Your task to perform on an android device: toggle translation in the chrome app Image 0: 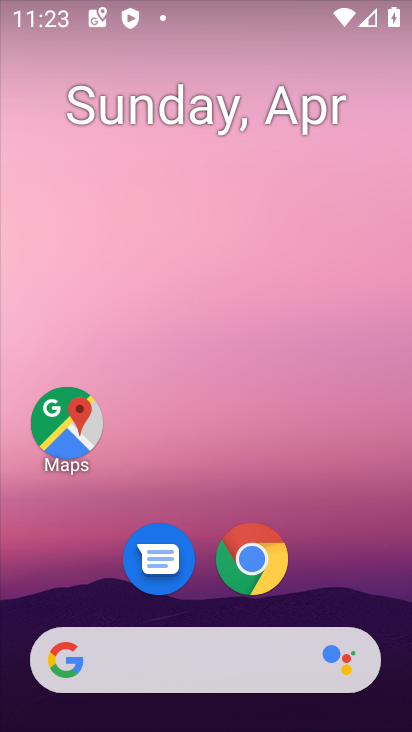
Step 0: click (257, 556)
Your task to perform on an android device: toggle translation in the chrome app Image 1: 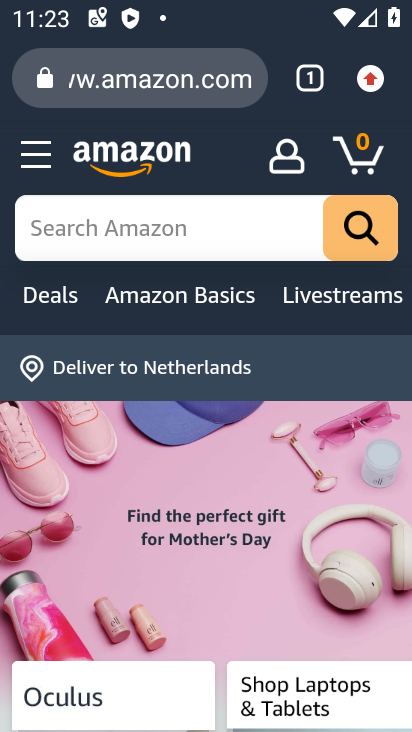
Step 1: click (366, 79)
Your task to perform on an android device: toggle translation in the chrome app Image 2: 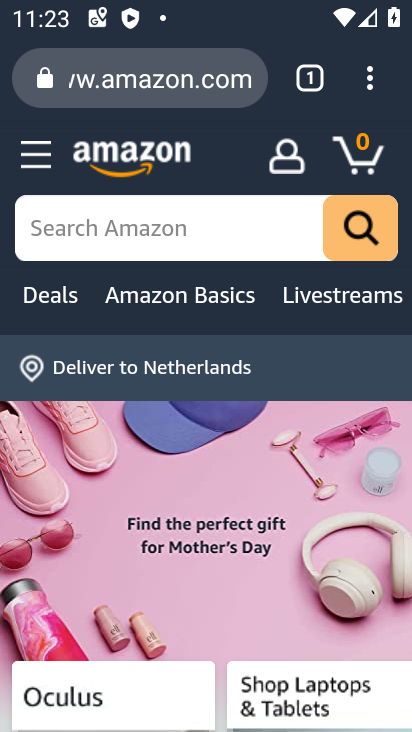
Step 2: click (366, 79)
Your task to perform on an android device: toggle translation in the chrome app Image 3: 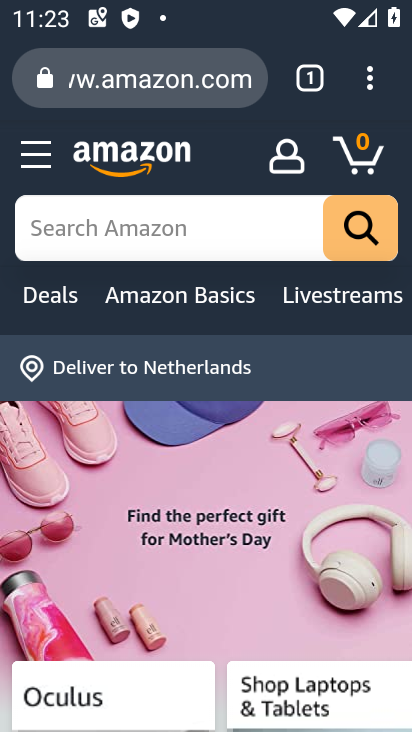
Step 3: click (373, 93)
Your task to perform on an android device: toggle translation in the chrome app Image 4: 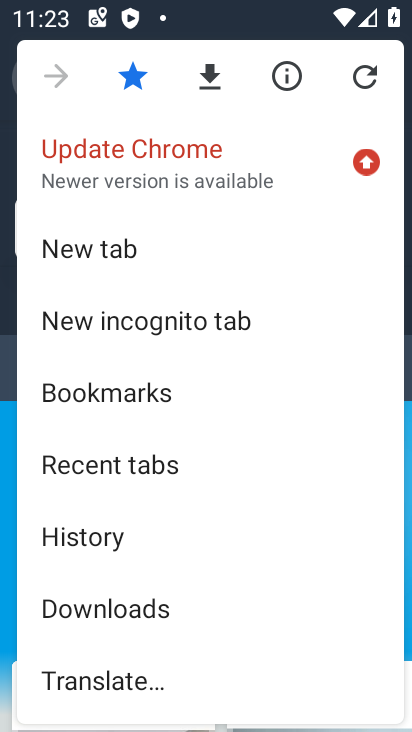
Step 4: drag from (102, 652) to (108, 416)
Your task to perform on an android device: toggle translation in the chrome app Image 5: 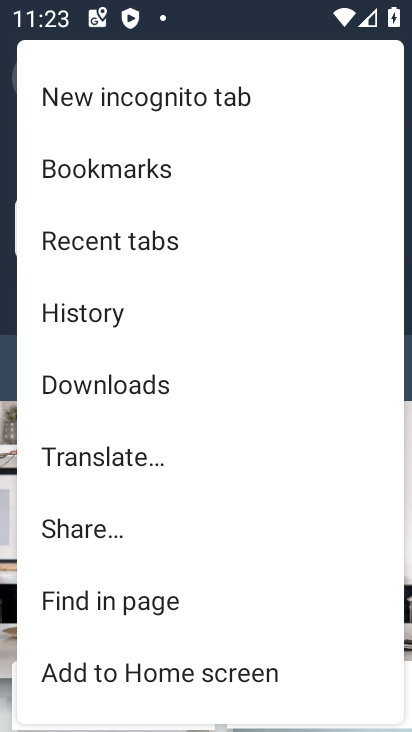
Step 5: drag from (128, 633) to (161, 433)
Your task to perform on an android device: toggle translation in the chrome app Image 6: 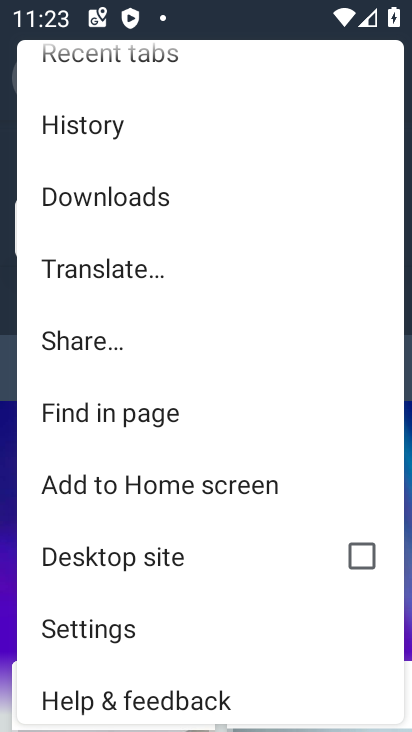
Step 6: click (132, 631)
Your task to perform on an android device: toggle translation in the chrome app Image 7: 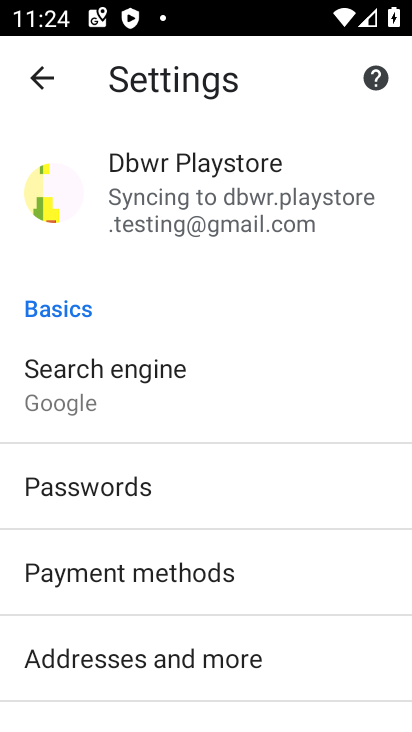
Step 7: drag from (134, 654) to (142, 551)
Your task to perform on an android device: toggle translation in the chrome app Image 8: 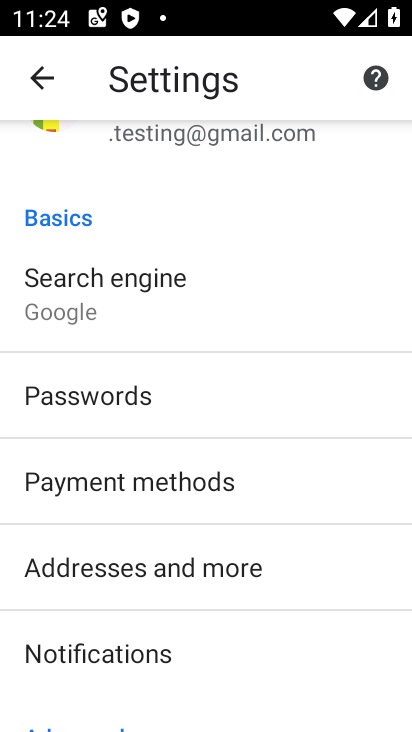
Step 8: drag from (120, 688) to (120, 608)
Your task to perform on an android device: toggle translation in the chrome app Image 9: 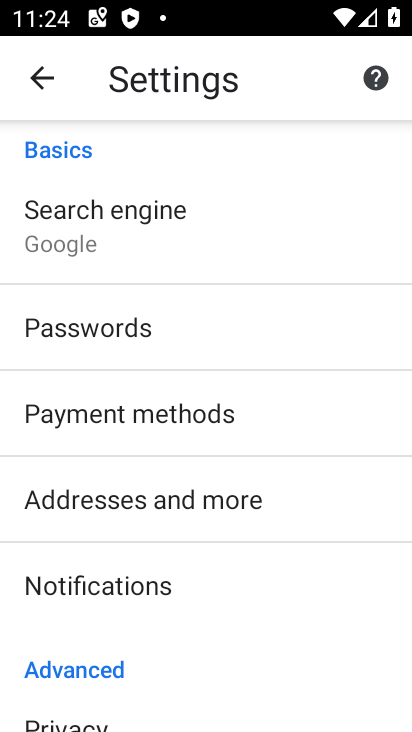
Step 9: drag from (143, 662) to (150, 579)
Your task to perform on an android device: toggle translation in the chrome app Image 10: 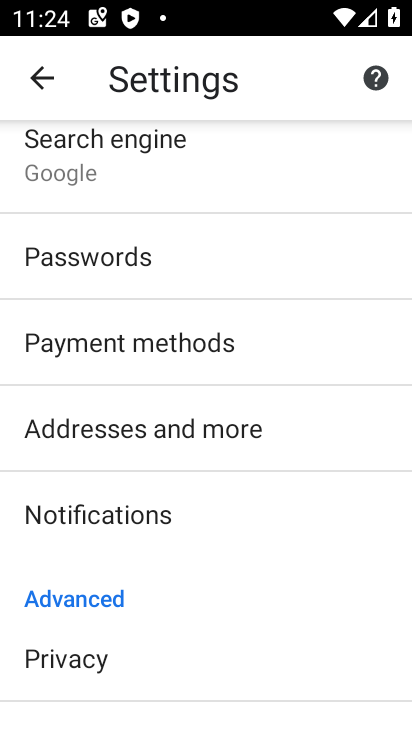
Step 10: drag from (136, 650) to (140, 540)
Your task to perform on an android device: toggle translation in the chrome app Image 11: 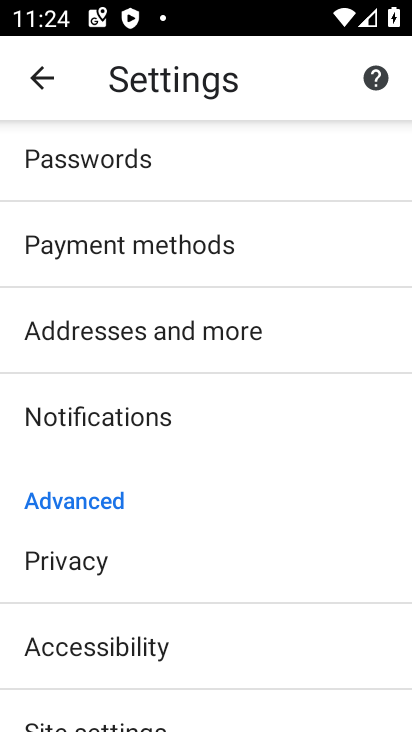
Step 11: drag from (142, 629) to (145, 540)
Your task to perform on an android device: toggle translation in the chrome app Image 12: 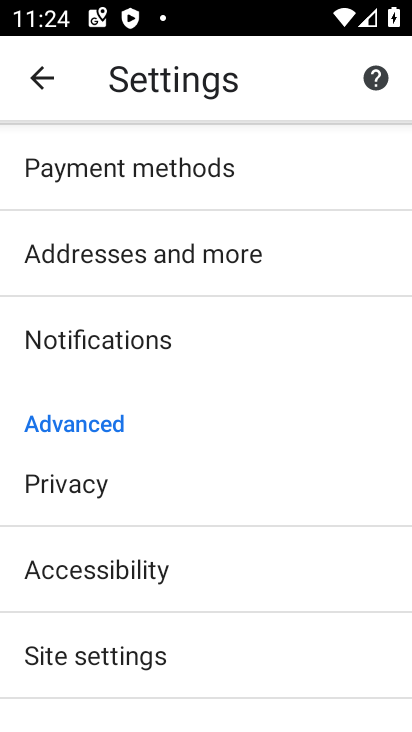
Step 12: drag from (144, 639) to (148, 532)
Your task to perform on an android device: toggle translation in the chrome app Image 13: 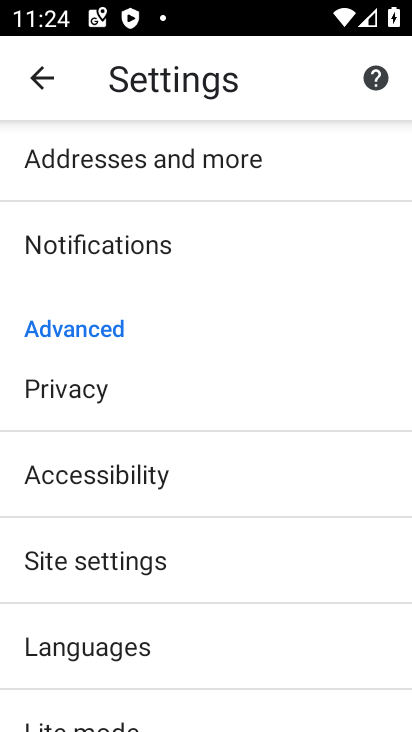
Step 13: drag from (152, 627) to (177, 491)
Your task to perform on an android device: toggle translation in the chrome app Image 14: 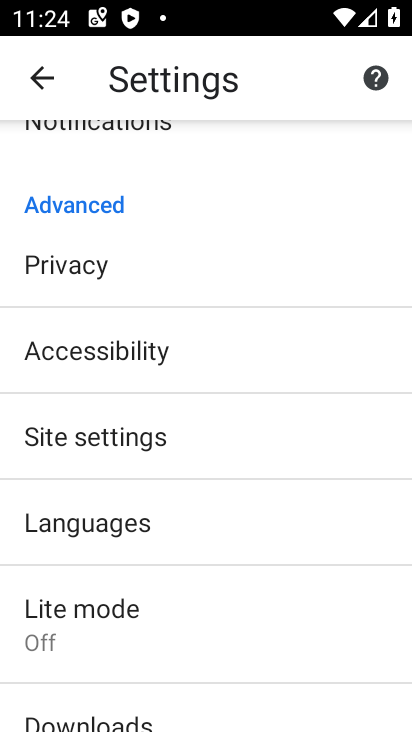
Step 14: click (193, 526)
Your task to perform on an android device: toggle translation in the chrome app Image 15: 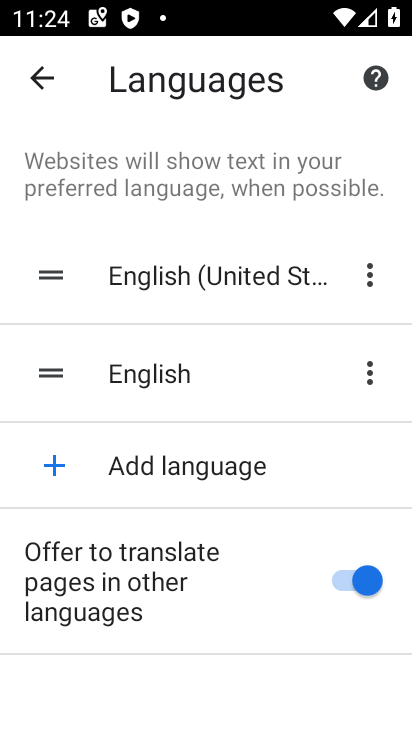
Step 15: click (357, 579)
Your task to perform on an android device: toggle translation in the chrome app Image 16: 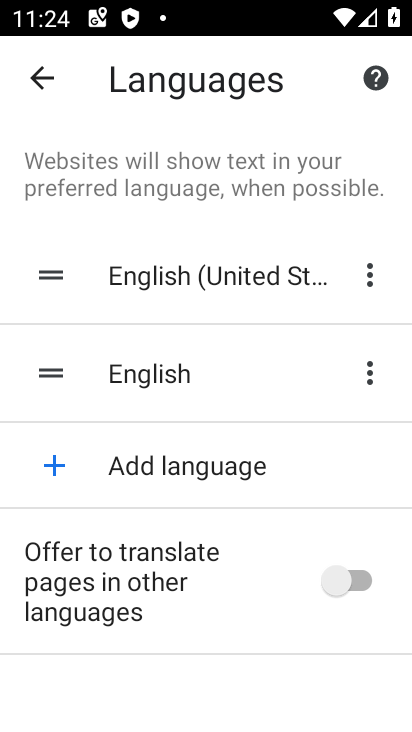
Step 16: task complete